Your task to perform on an android device: change text size in settings app Image 0: 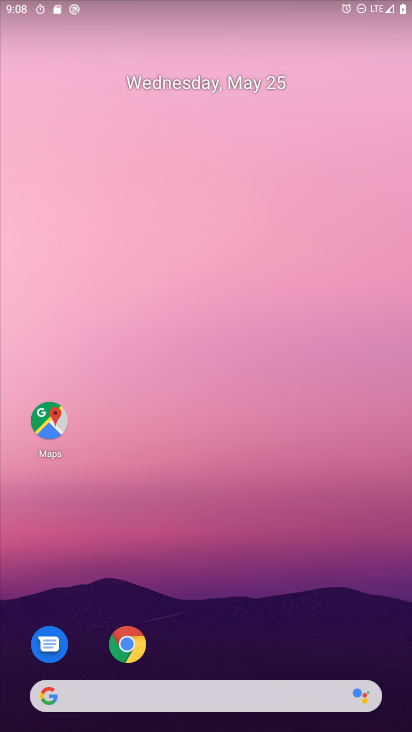
Step 0: drag from (302, 614) to (256, 1)
Your task to perform on an android device: change text size in settings app Image 1: 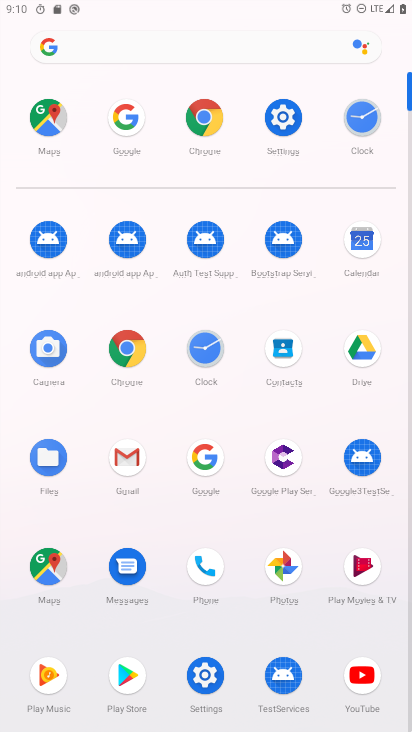
Step 1: click (217, 679)
Your task to perform on an android device: change text size in settings app Image 2: 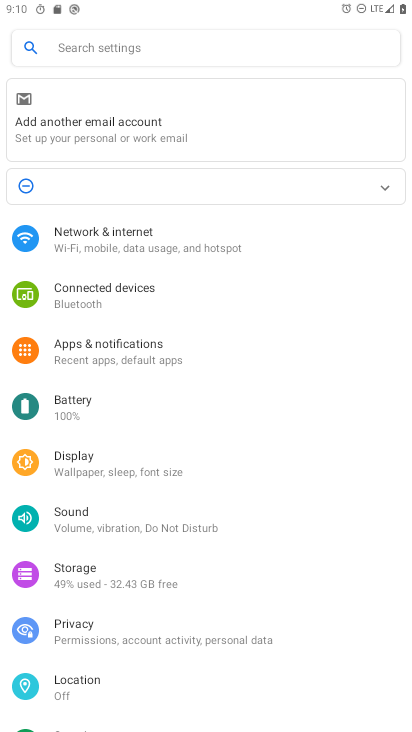
Step 2: click (107, 466)
Your task to perform on an android device: change text size in settings app Image 3: 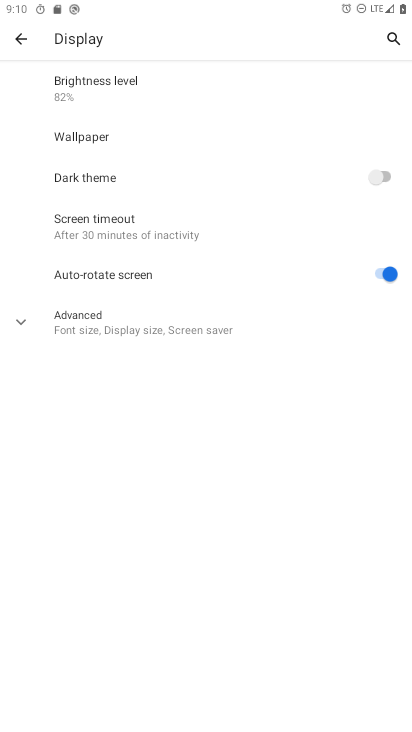
Step 3: click (117, 328)
Your task to perform on an android device: change text size in settings app Image 4: 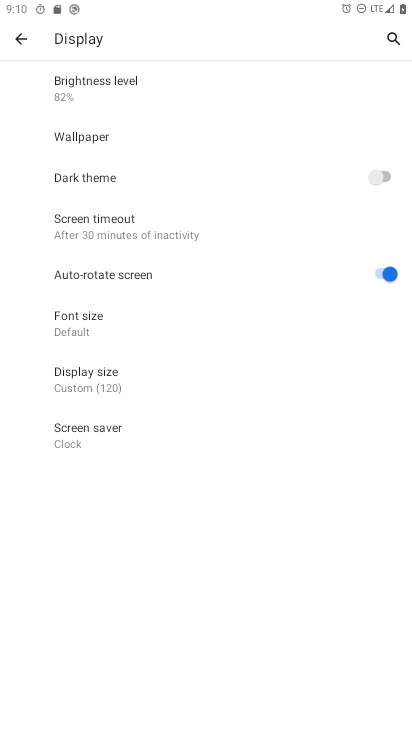
Step 4: click (120, 339)
Your task to perform on an android device: change text size in settings app Image 5: 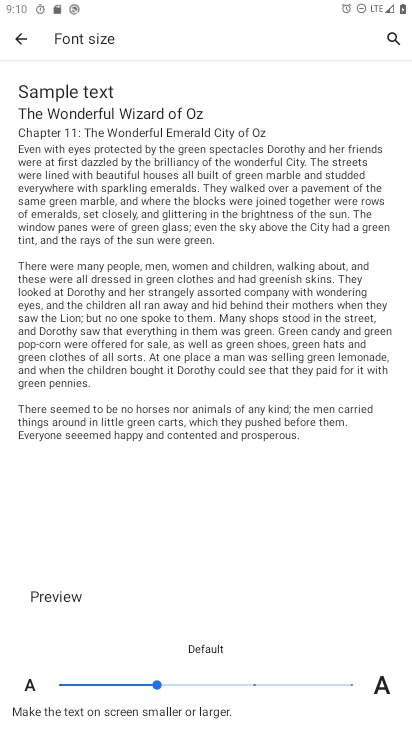
Step 5: click (251, 682)
Your task to perform on an android device: change text size in settings app Image 6: 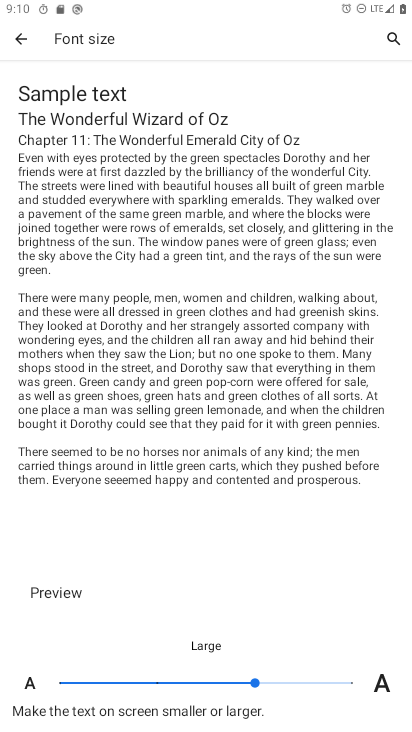
Step 6: task complete